Your task to perform on an android device: Go to battery settings Image 0: 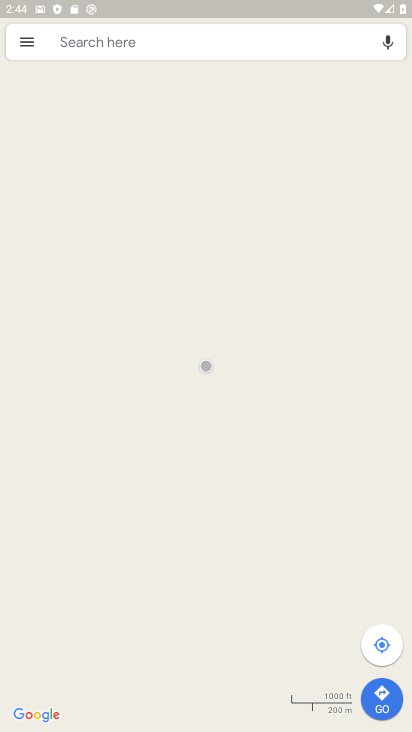
Step 0: press home button
Your task to perform on an android device: Go to battery settings Image 1: 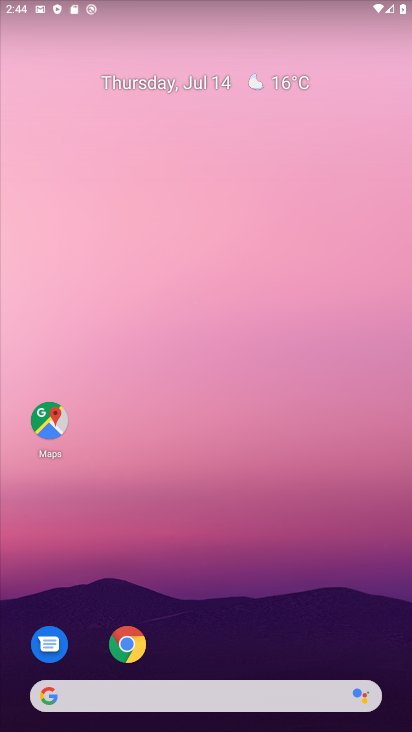
Step 1: drag from (211, 655) to (200, 143)
Your task to perform on an android device: Go to battery settings Image 2: 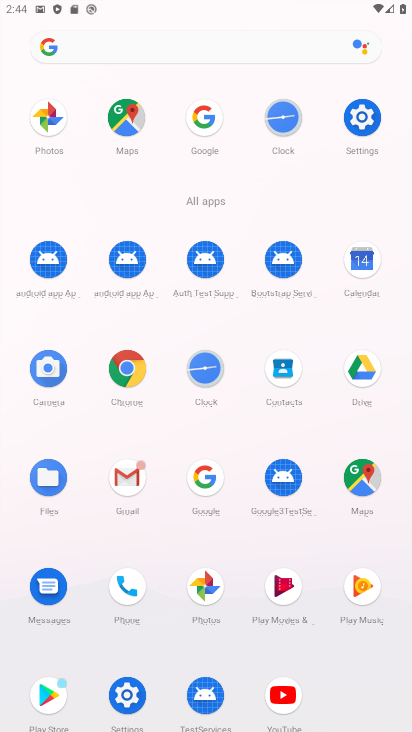
Step 2: click (354, 137)
Your task to perform on an android device: Go to battery settings Image 3: 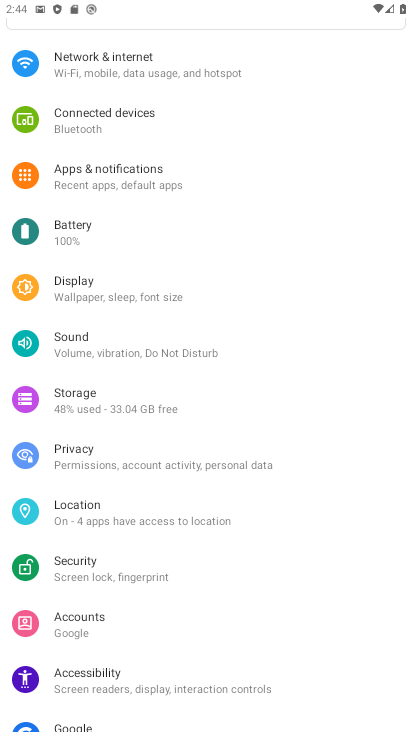
Step 3: click (137, 243)
Your task to perform on an android device: Go to battery settings Image 4: 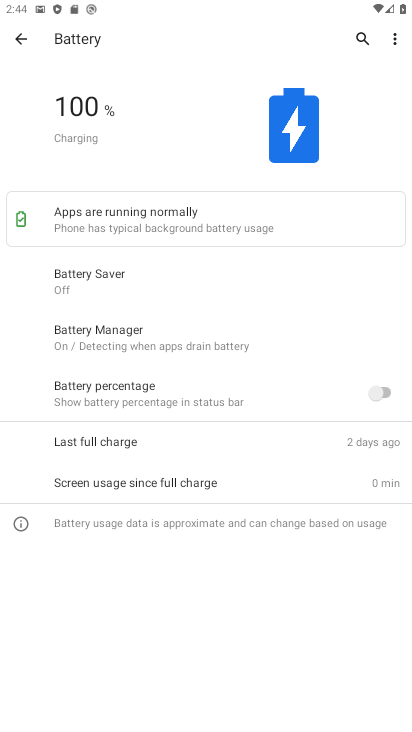
Step 4: task complete